Your task to perform on an android device: Check the weather Image 0: 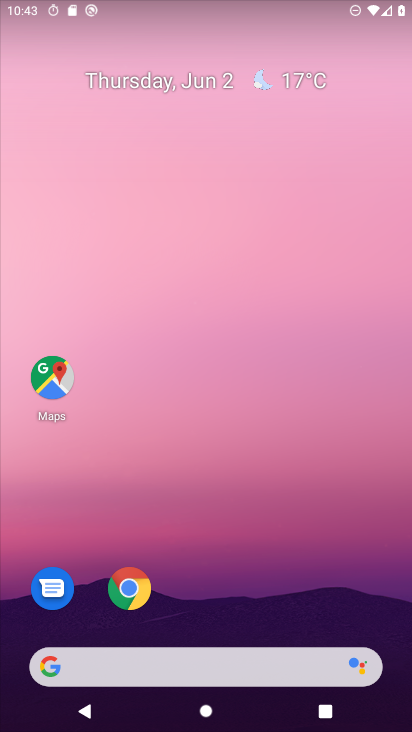
Step 0: drag from (217, 486) to (248, 191)
Your task to perform on an android device: Check the weather Image 1: 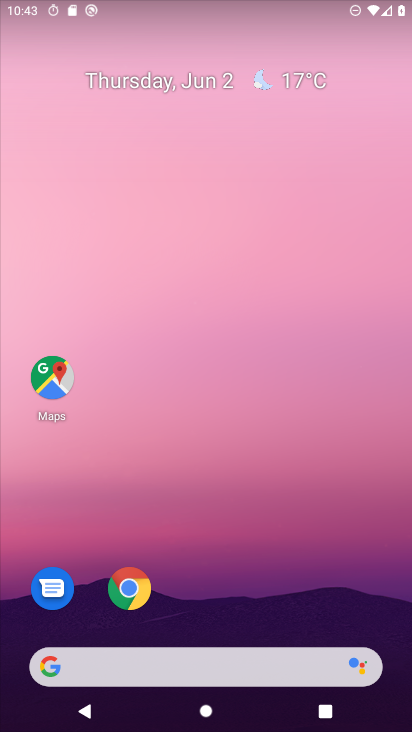
Step 1: drag from (191, 544) to (268, 123)
Your task to perform on an android device: Check the weather Image 2: 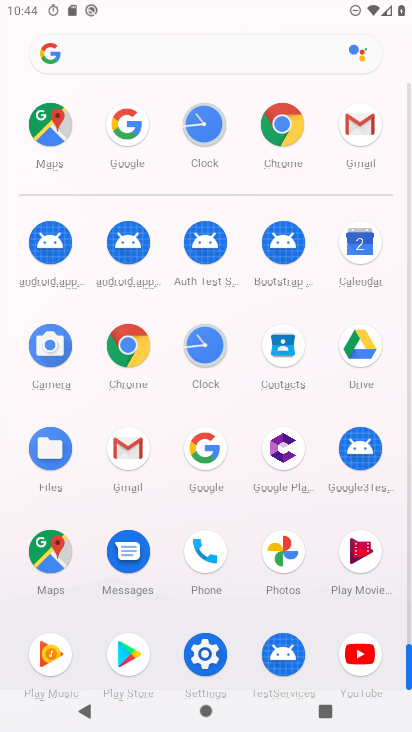
Step 2: click (213, 450)
Your task to perform on an android device: Check the weather Image 3: 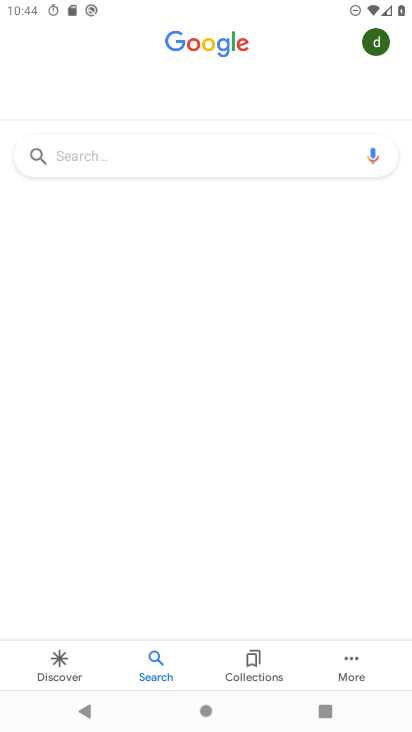
Step 3: click (232, 147)
Your task to perform on an android device: Check the weather Image 4: 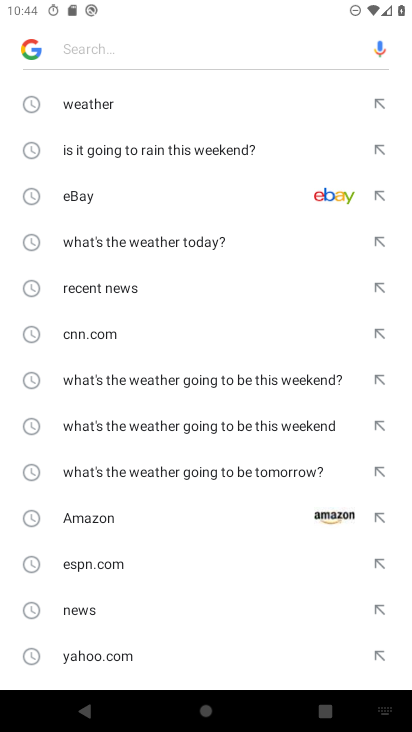
Step 4: click (158, 95)
Your task to perform on an android device: Check the weather Image 5: 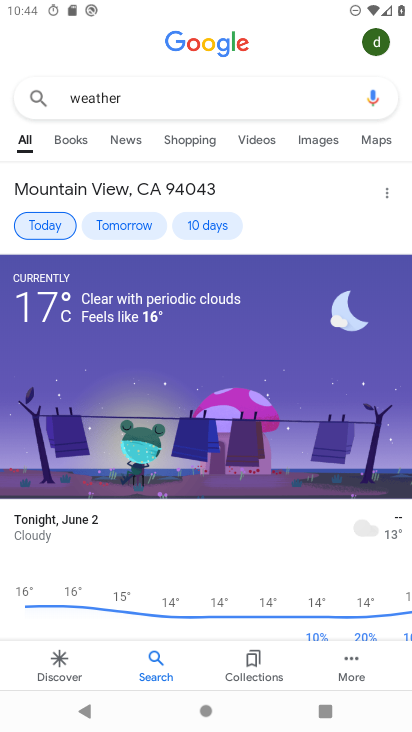
Step 5: task complete